Your task to perform on an android device: turn off airplane mode Image 0: 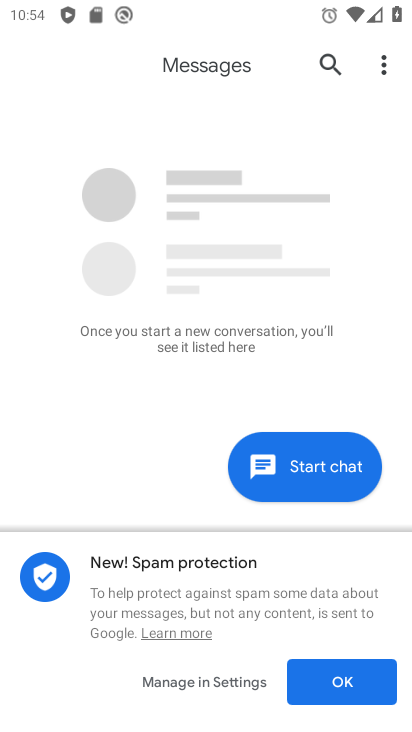
Step 0: press home button
Your task to perform on an android device: turn off airplane mode Image 1: 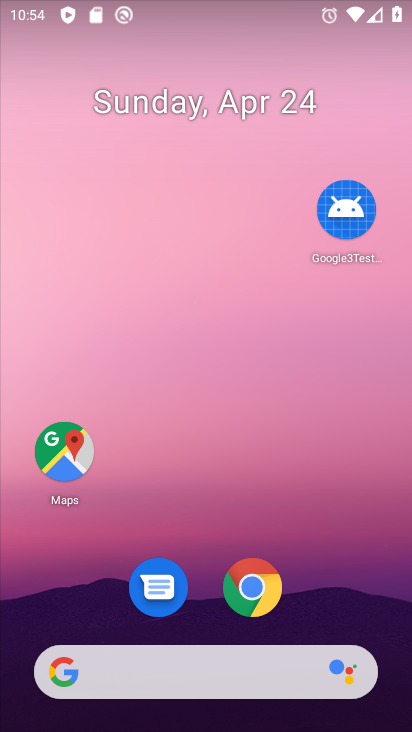
Step 1: drag from (330, 569) to (282, 105)
Your task to perform on an android device: turn off airplane mode Image 2: 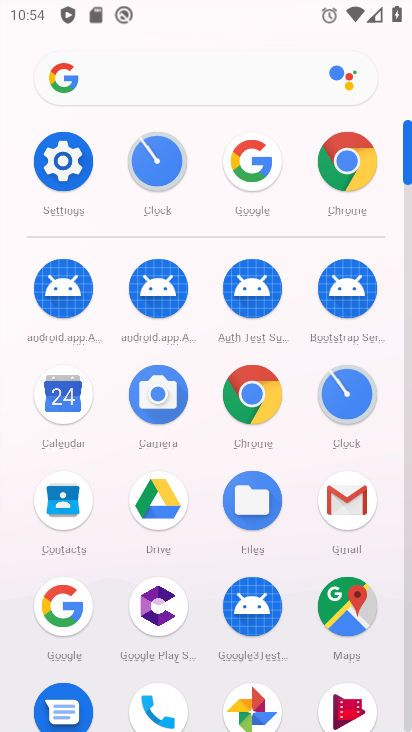
Step 2: click (67, 166)
Your task to perform on an android device: turn off airplane mode Image 3: 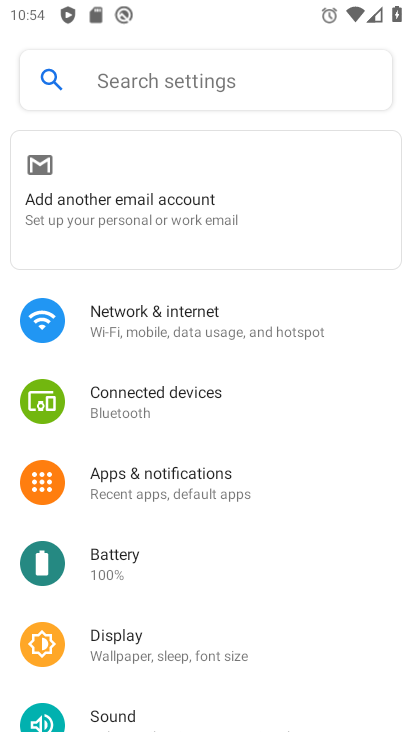
Step 3: click (214, 331)
Your task to perform on an android device: turn off airplane mode Image 4: 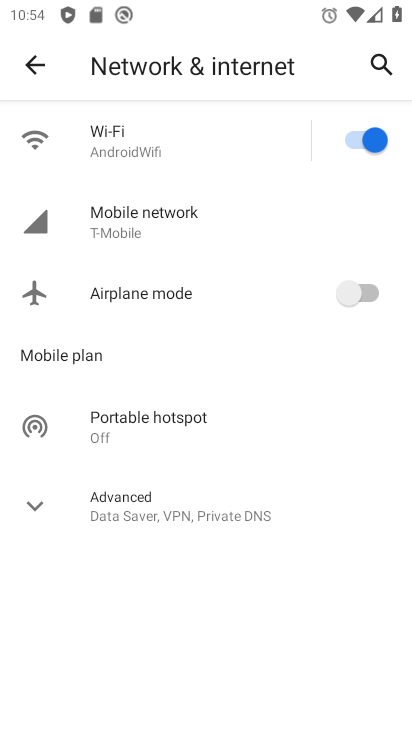
Step 4: task complete